Your task to perform on an android device: open sync settings in chrome Image 0: 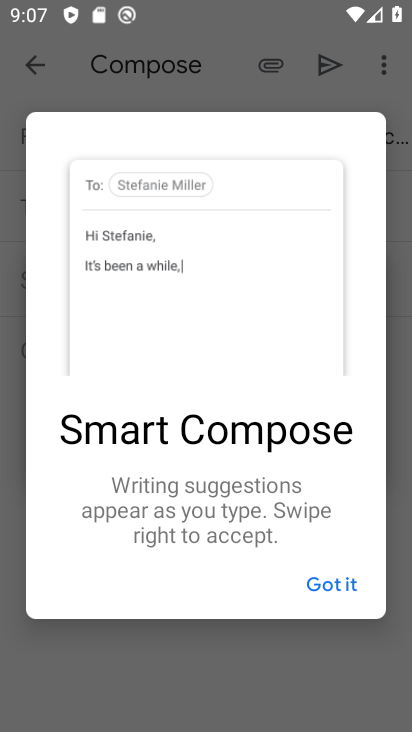
Step 0: press home button
Your task to perform on an android device: open sync settings in chrome Image 1: 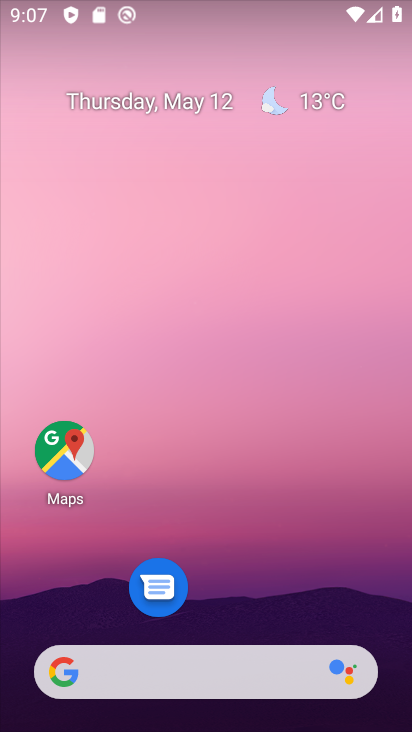
Step 1: drag from (214, 633) to (239, 109)
Your task to perform on an android device: open sync settings in chrome Image 2: 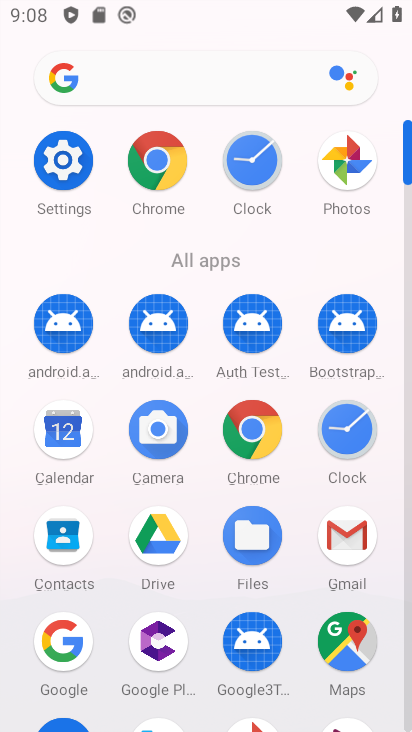
Step 2: click (246, 428)
Your task to perform on an android device: open sync settings in chrome Image 3: 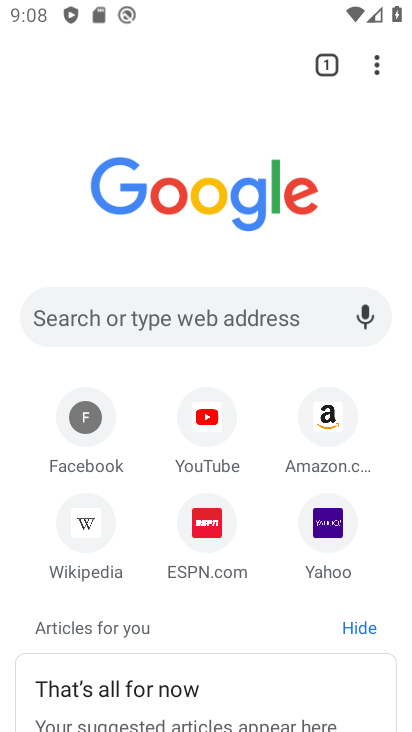
Step 3: click (376, 68)
Your task to perform on an android device: open sync settings in chrome Image 4: 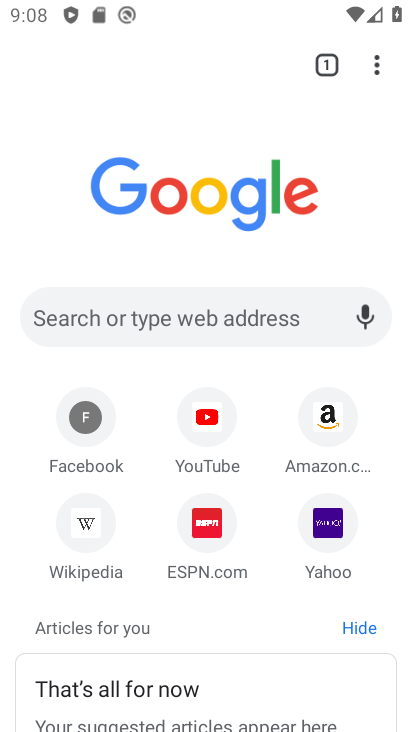
Step 4: drag from (376, 68) to (149, 534)
Your task to perform on an android device: open sync settings in chrome Image 5: 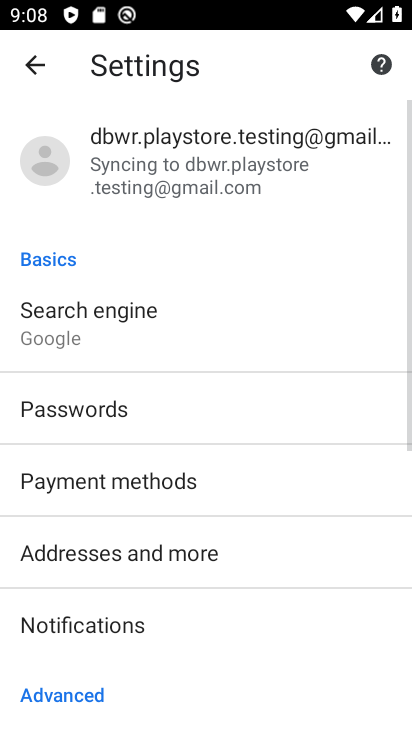
Step 5: click (99, 154)
Your task to perform on an android device: open sync settings in chrome Image 6: 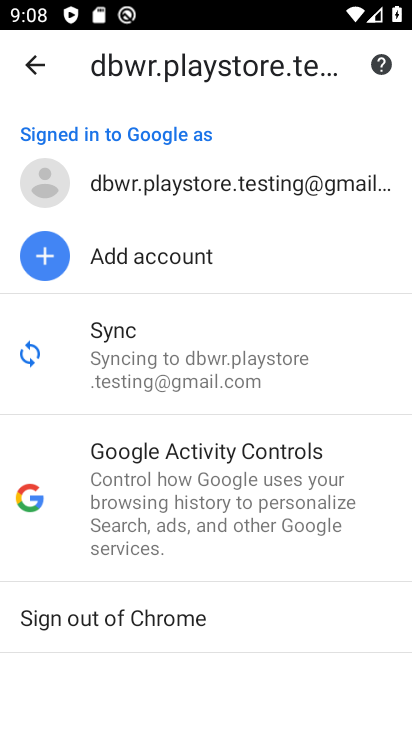
Step 6: task complete